Your task to perform on an android device: empty trash in the gmail app Image 0: 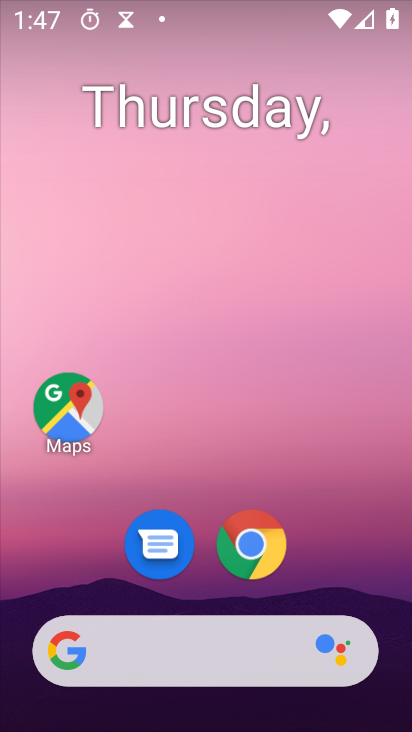
Step 0: drag from (201, 676) to (180, 226)
Your task to perform on an android device: empty trash in the gmail app Image 1: 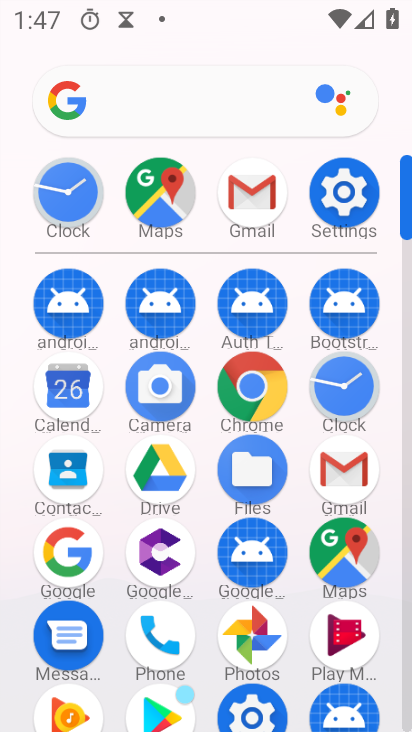
Step 1: click (347, 484)
Your task to perform on an android device: empty trash in the gmail app Image 2: 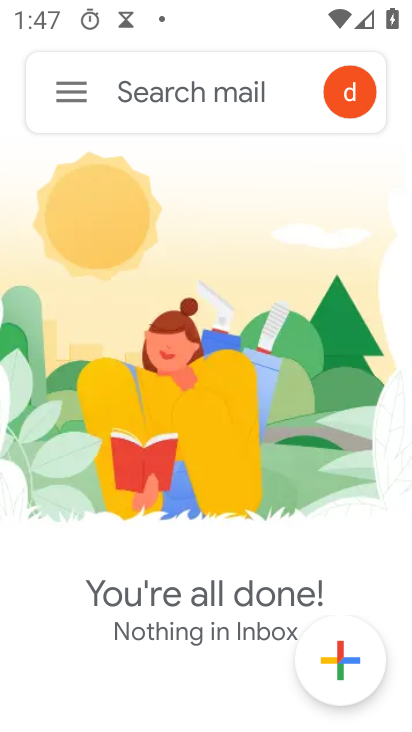
Step 2: click (67, 95)
Your task to perform on an android device: empty trash in the gmail app Image 3: 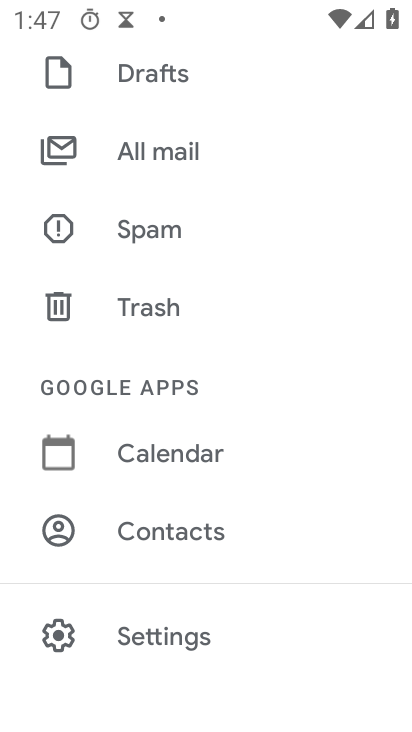
Step 3: click (153, 301)
Your task to perform on an android device: empty trash in the gmail app Image 4: 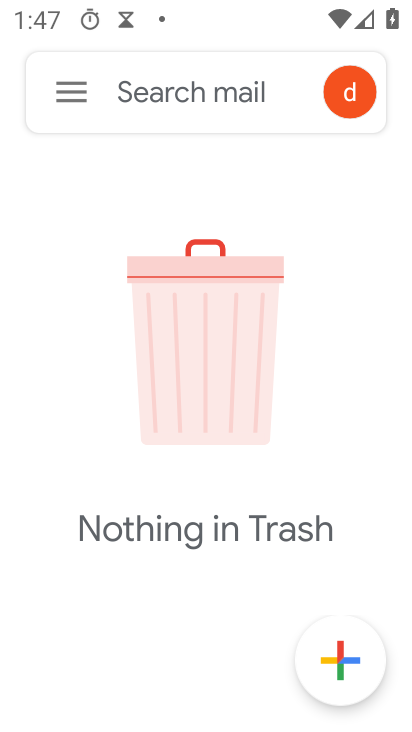
Step 4: task complete